Your task to perform on an android device: When is my next appointment? Image 0: 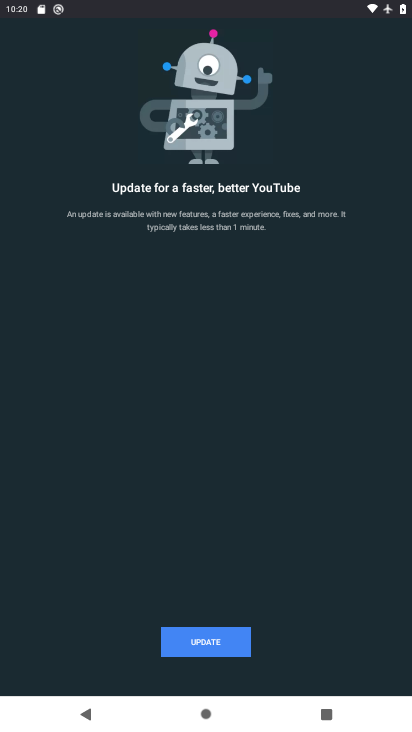
Step 0: press back button
Your task to perform on an android device: When is my next appointment? Image 1: 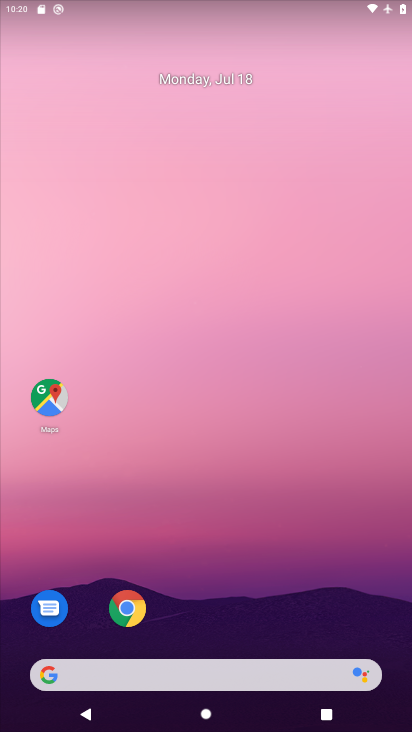
Step 1: drag from (200, 654) to (273, 23)
Your task to perform on an android device: When is my next appointment? Image 2: 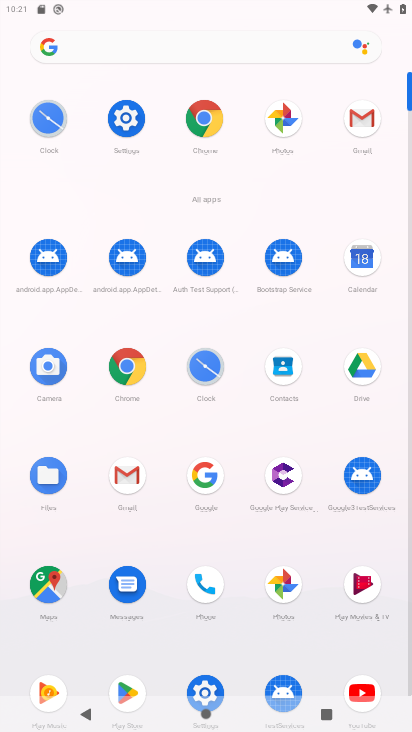
Step 2: click (355, 272)
Your task to perform on an android device: When is my next appointment? Image 3: 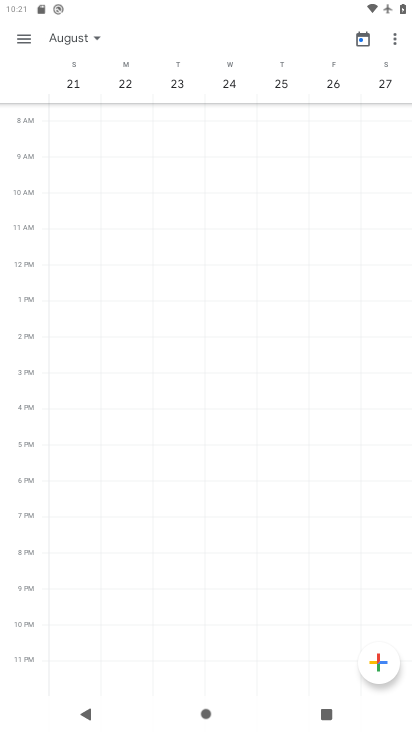
Step 3: click (364, 32)
Your task to perform on an android device: When is my next appointment? Image 4: 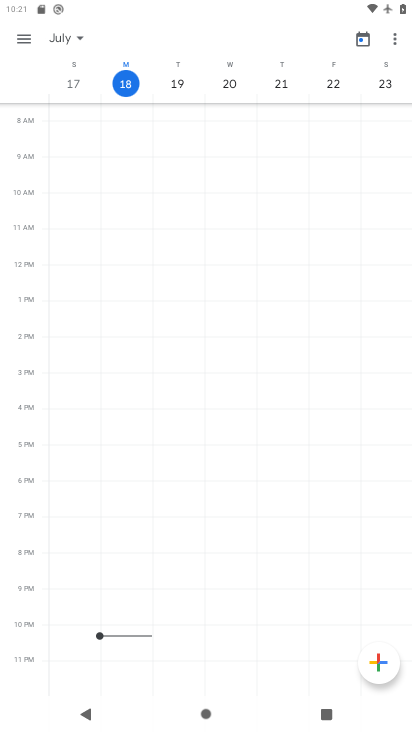
Step 4: task complete